Your task to perform on an android device: see creations saved in the google photos Image 0: 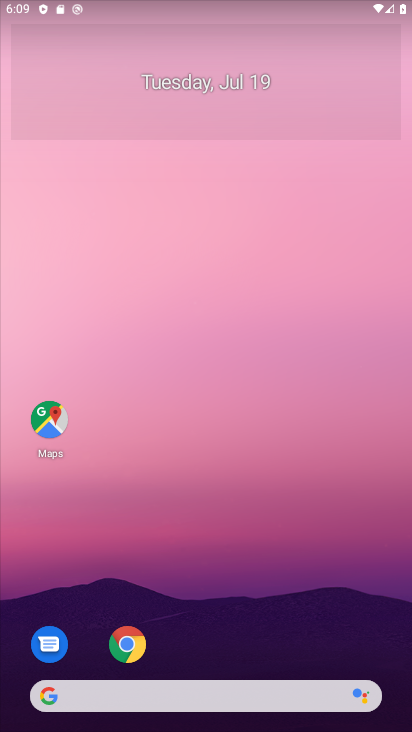
Step 0: drag from (248, 613) to (196, 289)
Your task to perform on an android device: see creations saved in the google photos Image 1: 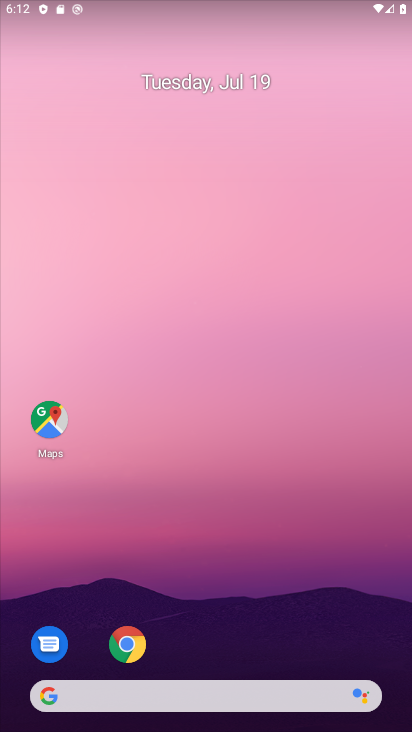
Step 1: drag from (222, 547) to (232, 197)
Your task to perform on an android device: see creations saved in the google photos Image 2: 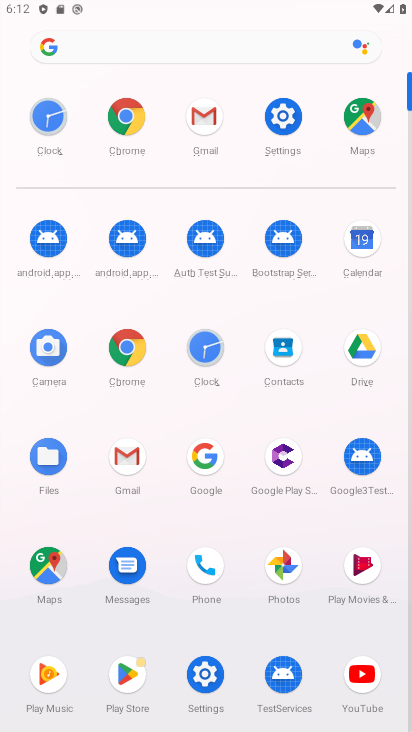
Step 2: click (277, 574)
Your task to perform on an android device: see creations saved in the google photos Image 3: 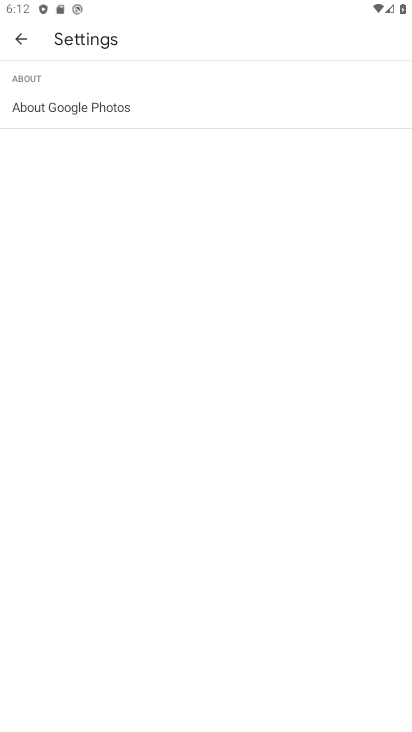
Step 3: task complete